Your task to perform on an android device: Open Youtube and go to the subscriptions tab Image 0: 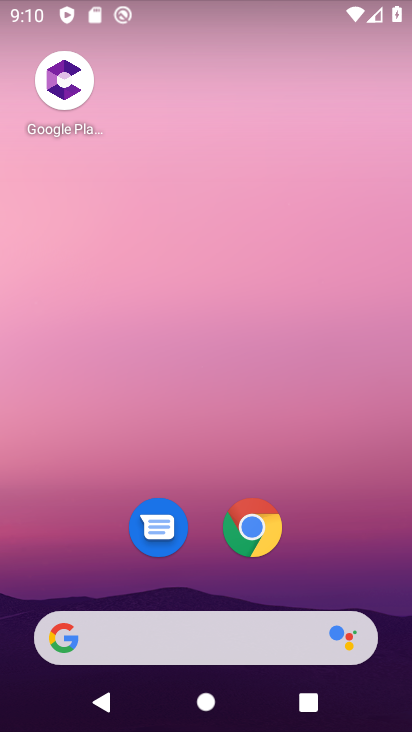
Step 0: drag from (397, 620) to (267, 115)
Your task to perform on an android device: Open Youtube and go to the subscriptions tab Image 1: 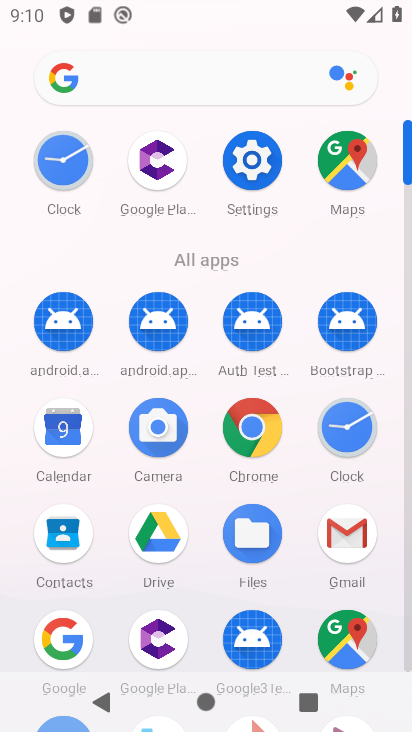
Step 1: click (407, 657)
Your task to perform on an android device: Open Youtube and go to the subscriptions tab Image 2: 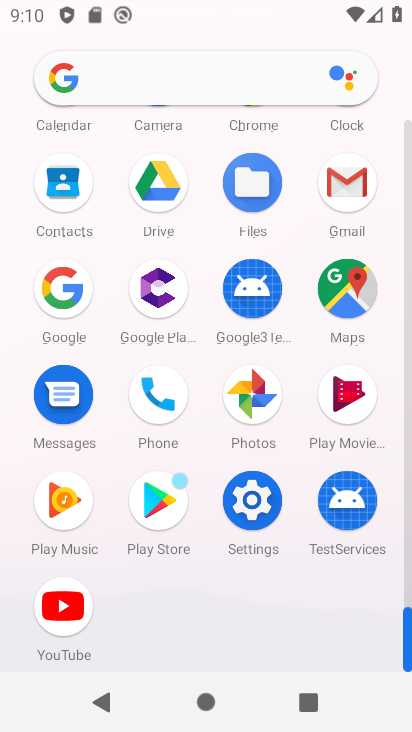
Step 2: click (57, 603)
Your task to perform on an android device: Open Youtube and go to the subscriptions tab Image 3: 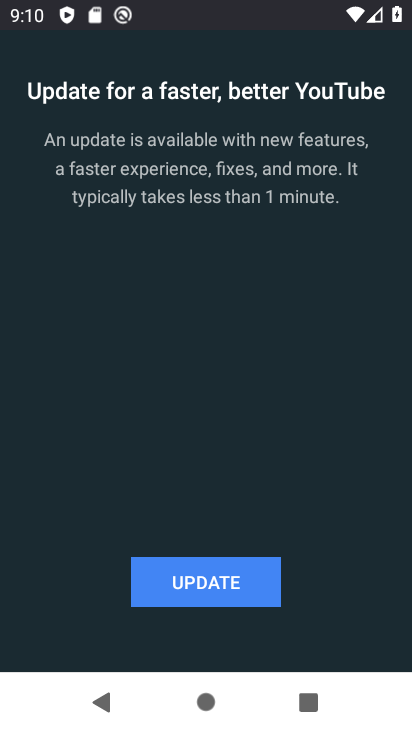
Step 3: task complete